Your task to perform on an android device: Open Google Chrome Image 0: 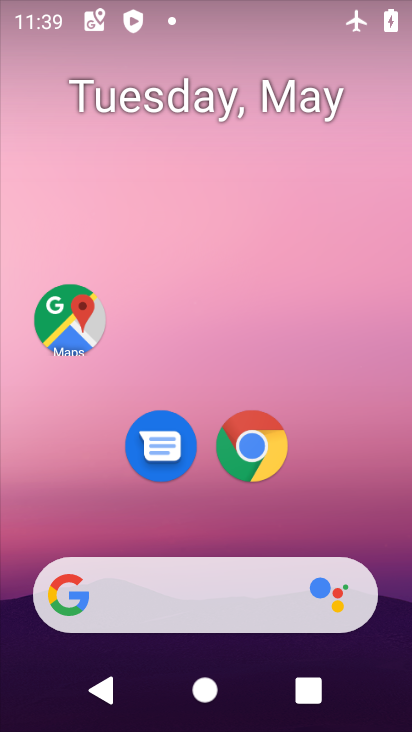
Step 0: click (257, 445)
Your task to perform on an android device: Open Google Chrome Image 1: 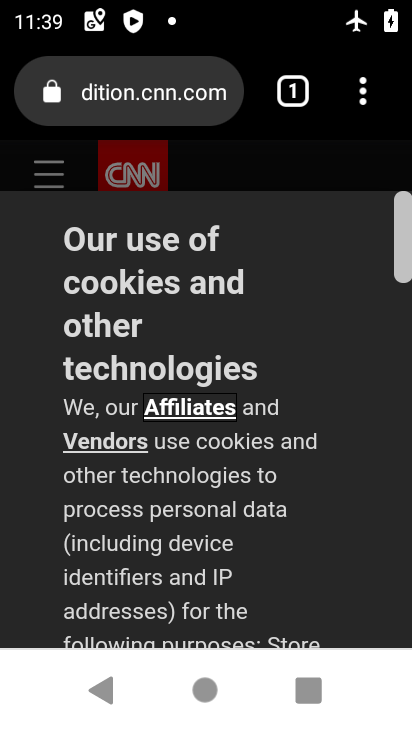
Step 1: task complete